Your task to perform on an android device: Open the calendar app, open the side menu, and click the "Day" option Image 0: 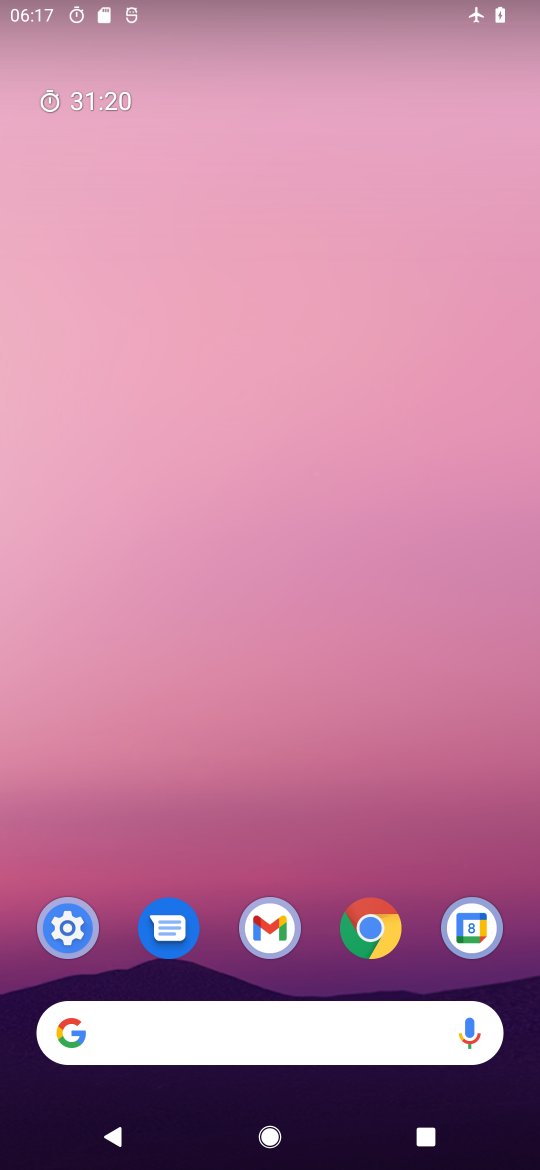
Step 0: drag from (225, 813) to (231, 323)
Your task to perform on an android device: Open the calendar app, open the side menu, and click the "Day" option Image 1: 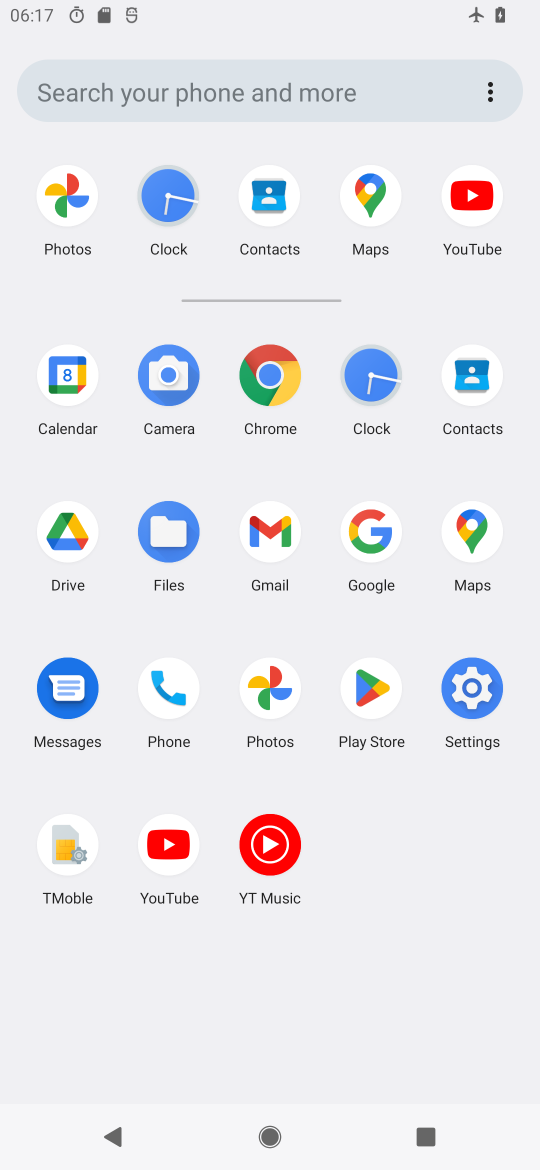
Step 1: click (50, 393)
Your task to perform on an android device: Open the calendar app, open the side menu, and click the "Day" option Image 2: 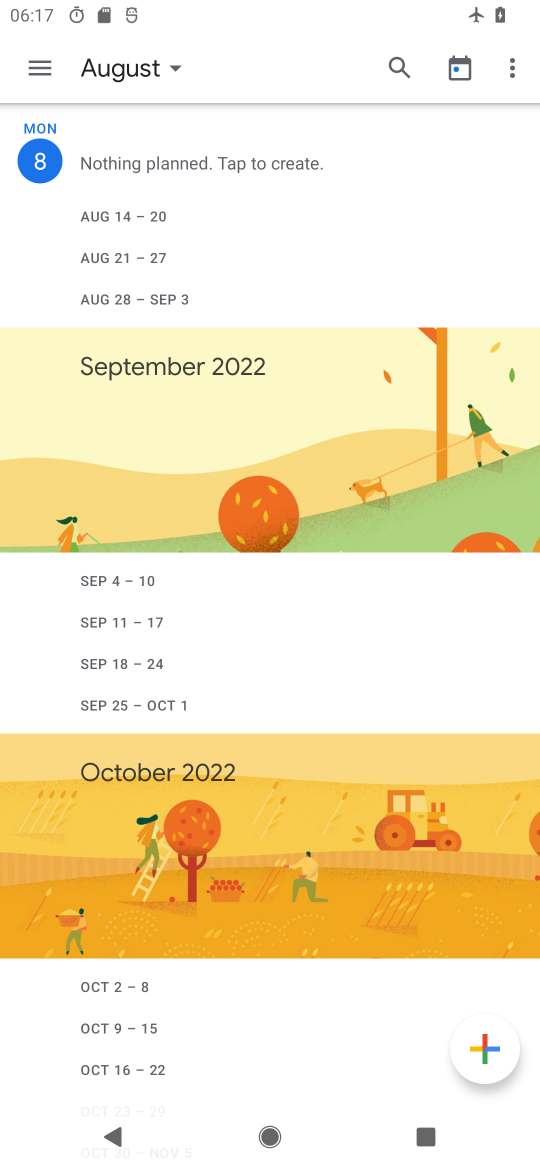
Step 2: click (42, 67)
Your task to perform on an android device: Open the calendar app, open the side menu, and click the "Day" option Image 3: 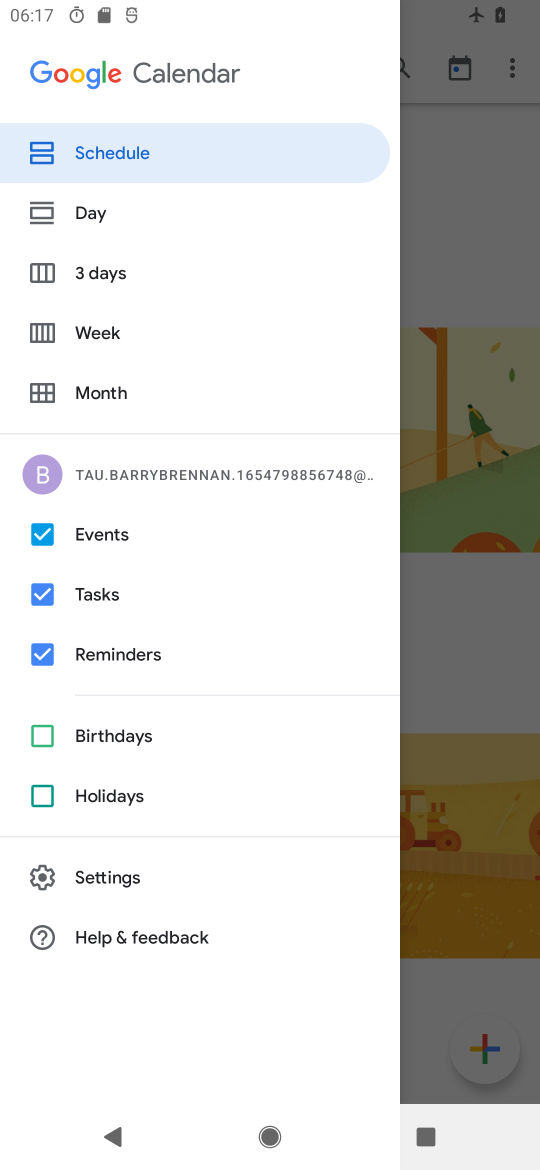
Step 3: click (88, 225)
Your task to perform on an android device: Open the calendar app, open the side menu, and click the "Day" option Image 4: 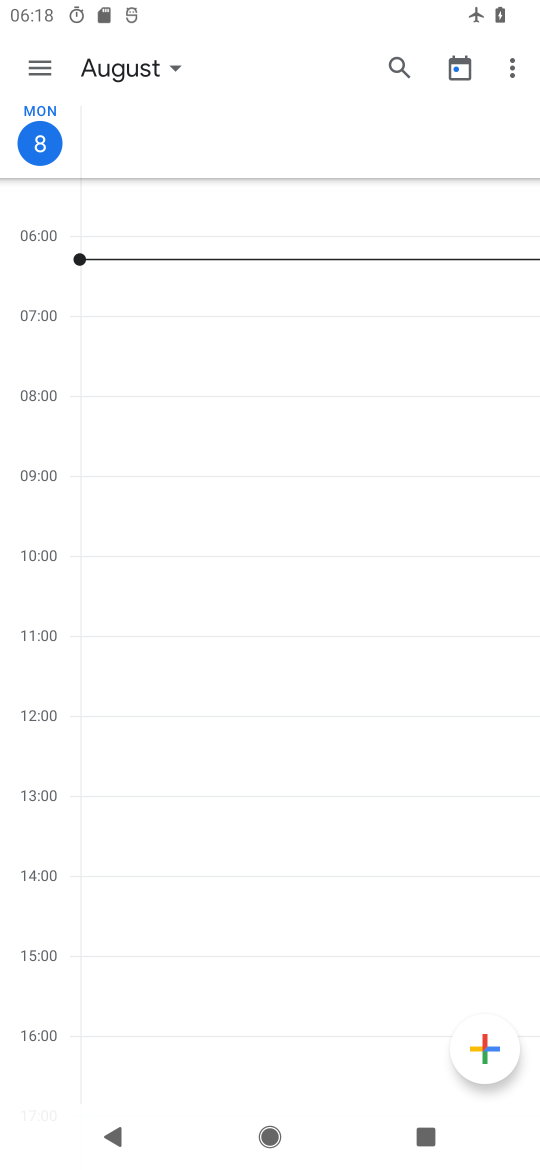
Step 4: task complete